Your task to perform on an android device: open app "Mercado Libre" Image 0: 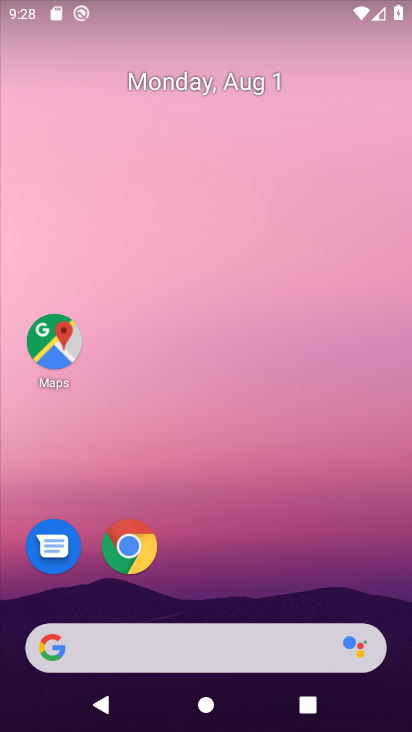
Step 0: press home button
Your task to perform on an android device: open app "Mercado Libre" Image 1: 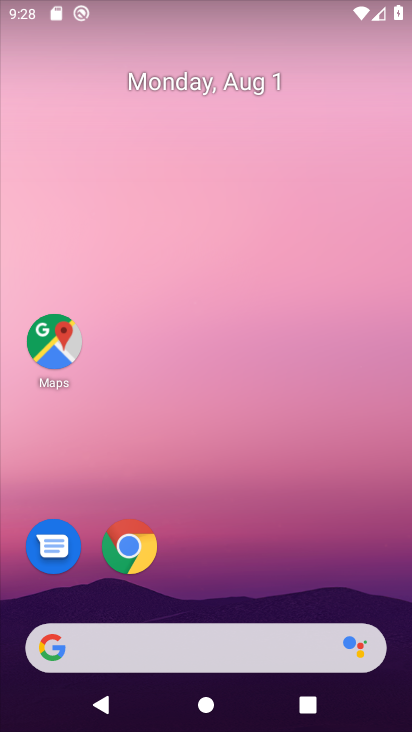
Step 1: drag from (215, 599) to (264, 19)
Your task to perform on an android device: open app "Mercado Libre" Image 2: 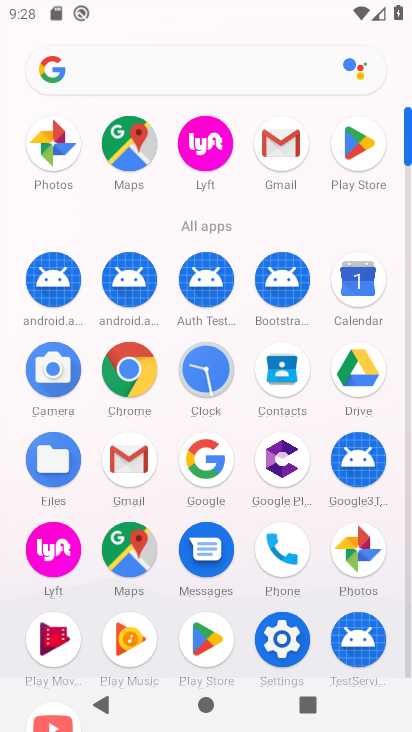
Step 2: click (354, 137)
Your task to perform on an android device: open app "Mercado Libre" Image 3: 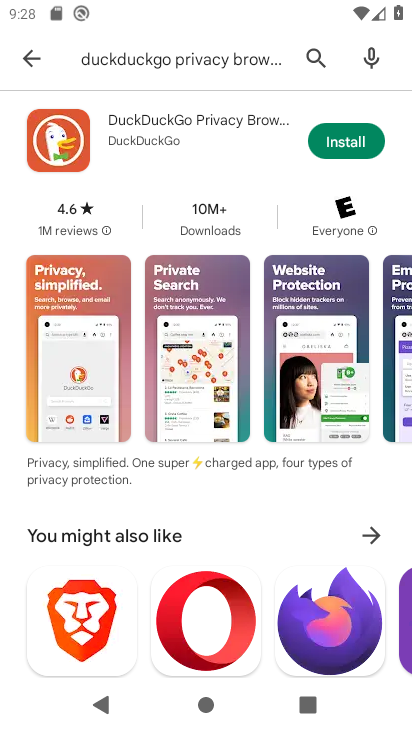
Step 3: click (317, 50)
Your task to perform on an android device: open app "Mercado Libre" Image 4: 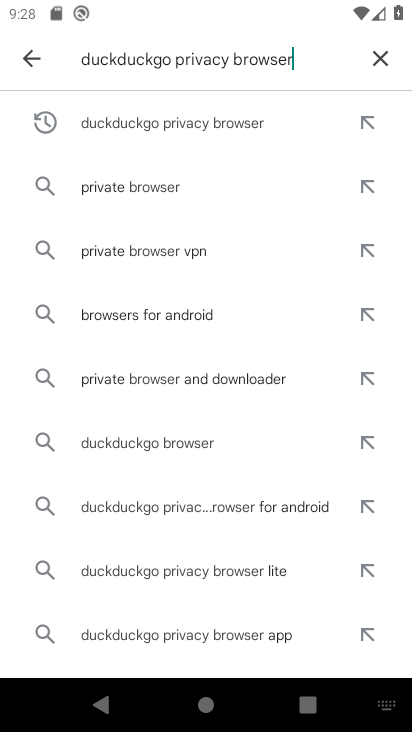
Step 4: click (379, 55)
Your task to perform on an android device: open app "Mercado Libre" Image 5: 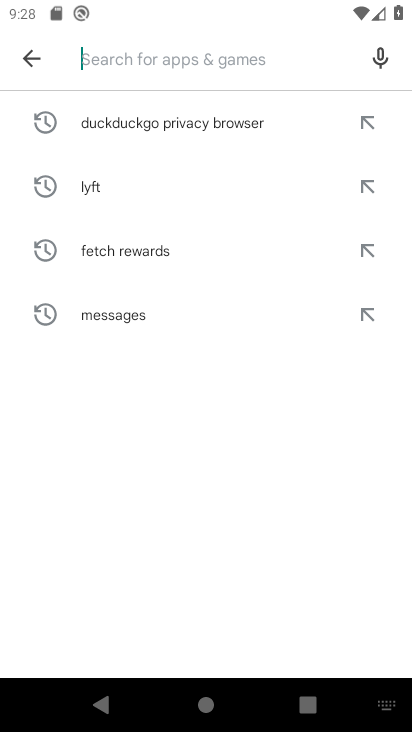
Step 5: type "Mercado Libre"
Your task to perform on an android device: open app "Mercado Libre" Image 6: 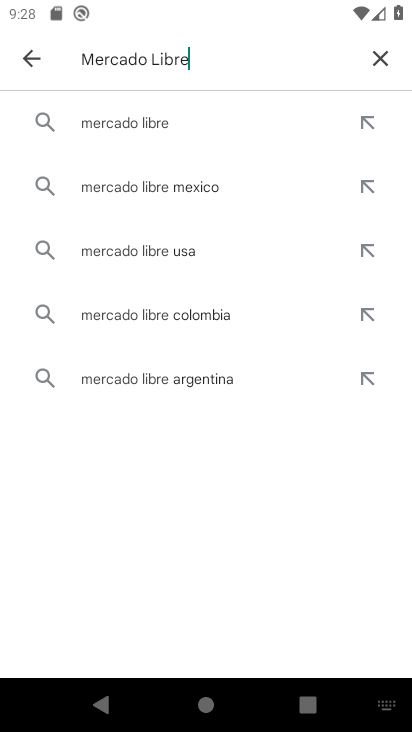
Step 6: click (178, 119)
Your task to perform on an android device: open app "Mercado Libre" Image 7: 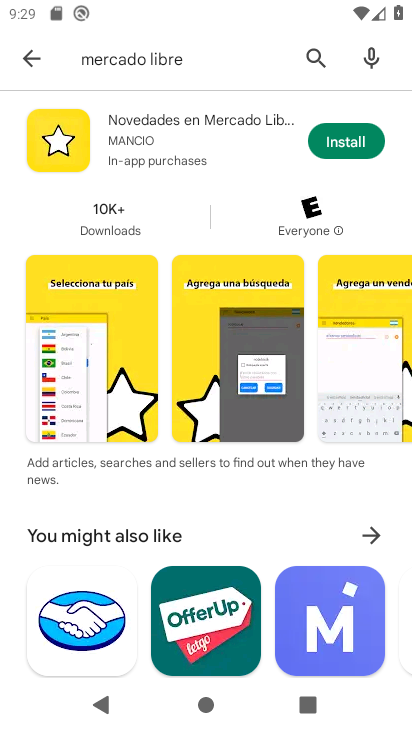
Step 7: task complete